Your task to perform on an android device: toggle data saver in the chrome app Image 0: 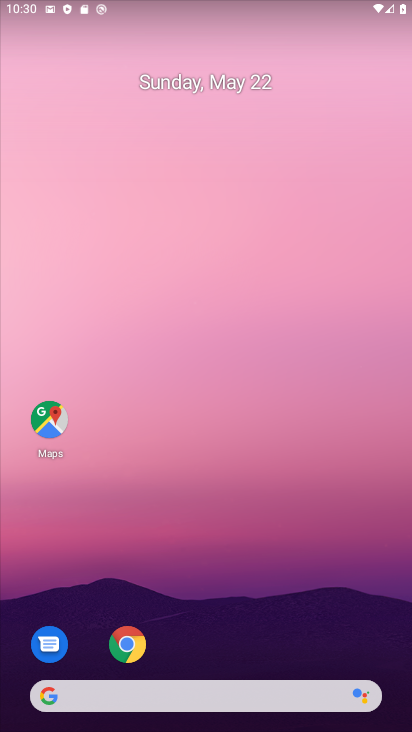
Step 0: drag from (366, 619) to (269, 29)
Your task to perform on an android device: toggle data saver in the chrome app Image 1: 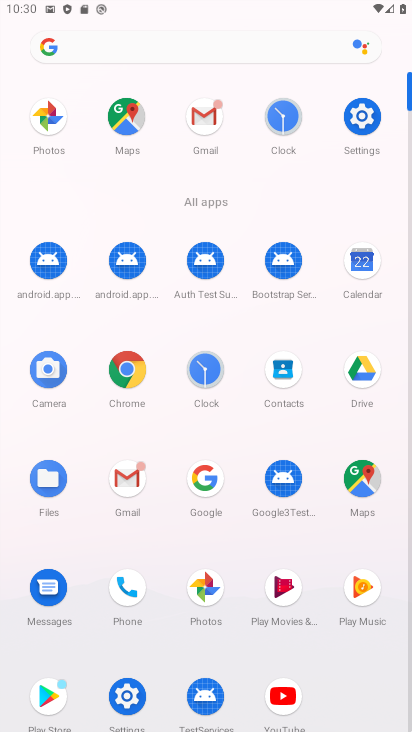
Step 1: click (137, 385)
Your task to perform on an android device: toggle data saver in the chrome app Image 2: 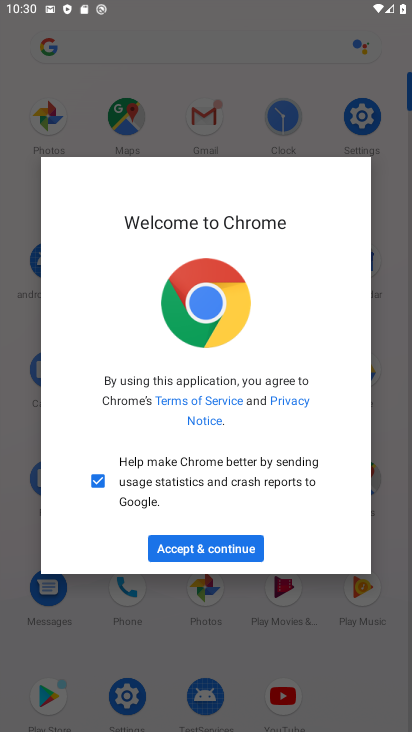
Step 2: click (219, 545)
Your task to perform on an android device: toggle data saver in the chrome app Image 3: 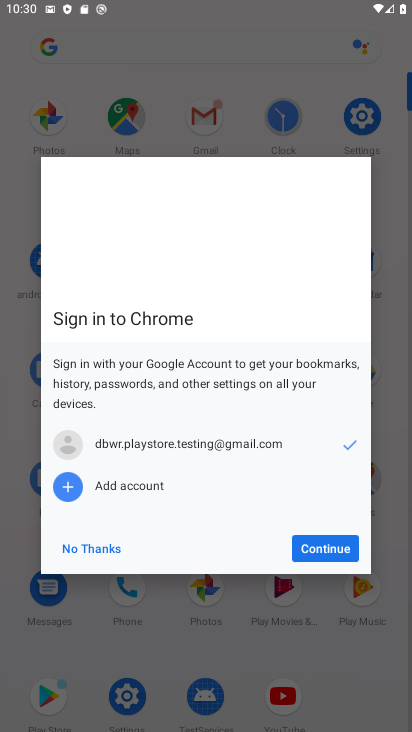
Step 3: click (308, 550)
Your task to perform on an android device: toggle data saver in the chrome app Image 4: 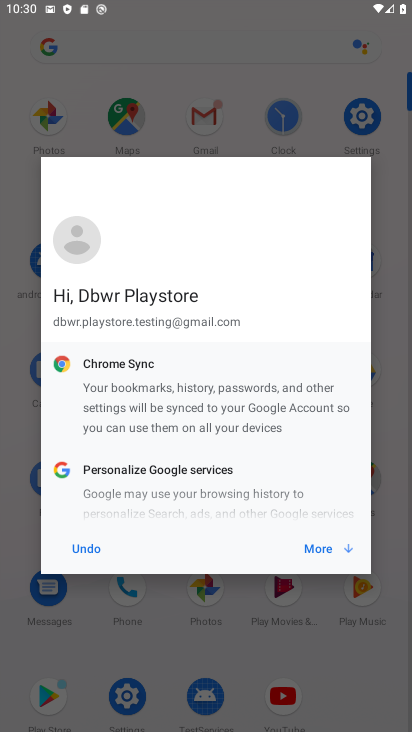
Step 4: click (308, 550)
Your task to perform on an android device: toggle data saver in the chrome app Image 5: 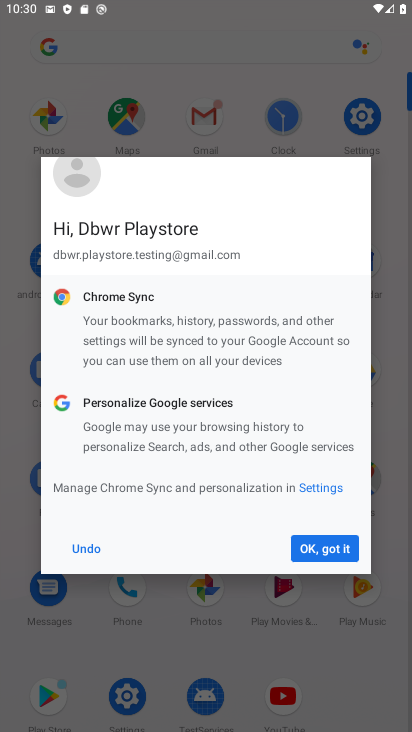
Step 5: click (308, 550)
Your task to perform on an android device: toggle data saver in the chrome app Image 6: 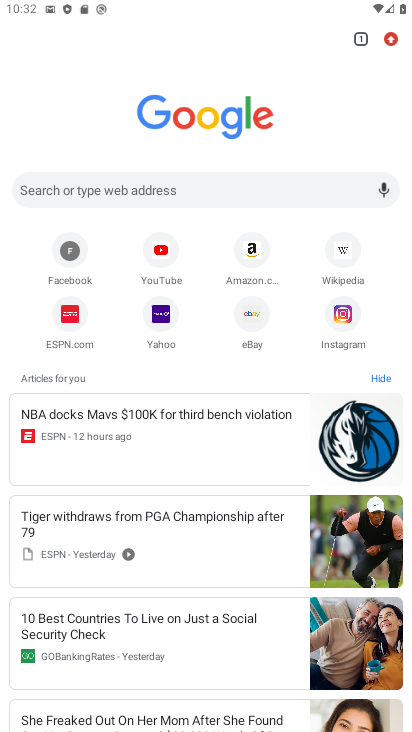
Step 6: drag from (375, 99) to (321, 699)
Your task to perform on an android device: toggle data saver in the chrome app Image 7: 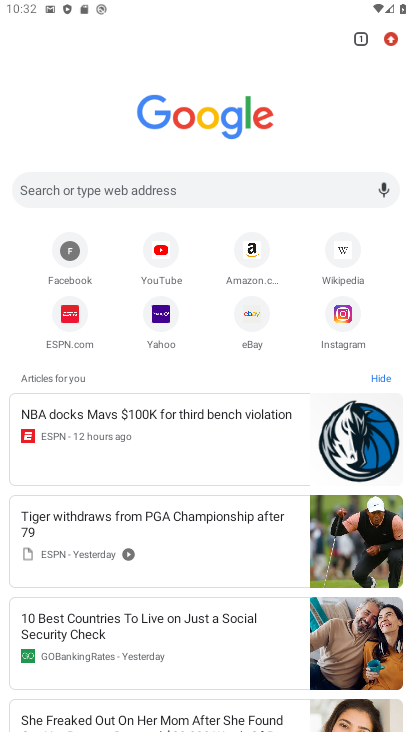
Step 7: click (386, 34)
Your task to perform on an android device: toggle data saver in the chrome app Image 8: 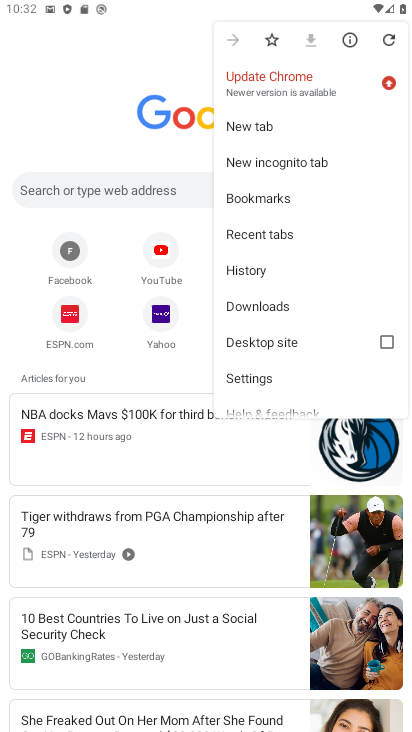
Step 8: click (279, 378)
Your task to perform on an android device: toggle data saver in the chrome app Image 9: 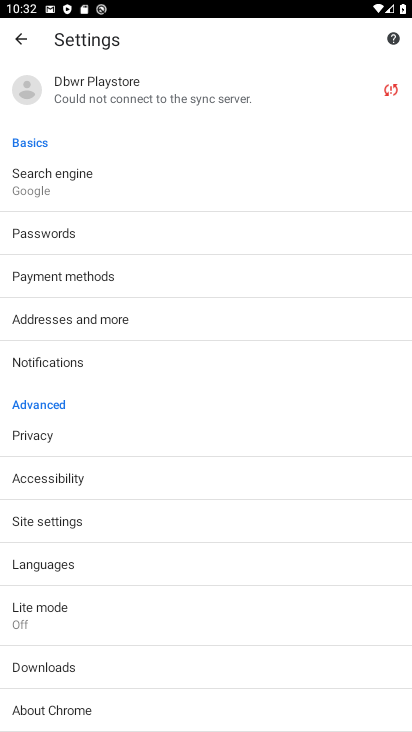
Step 9: click (121, 626)
Your task to perform on an android device: toggle data saver in the chrome app Image 10: 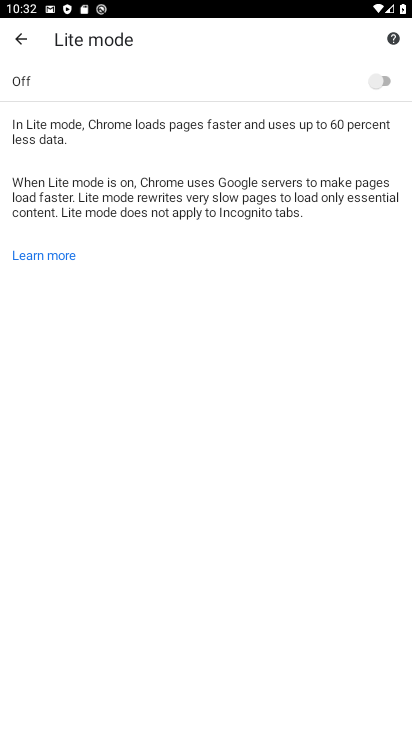
Step 10: click (357, 78)
Your task to perform on an android device: toggle data saver in the chrome app Image 11: 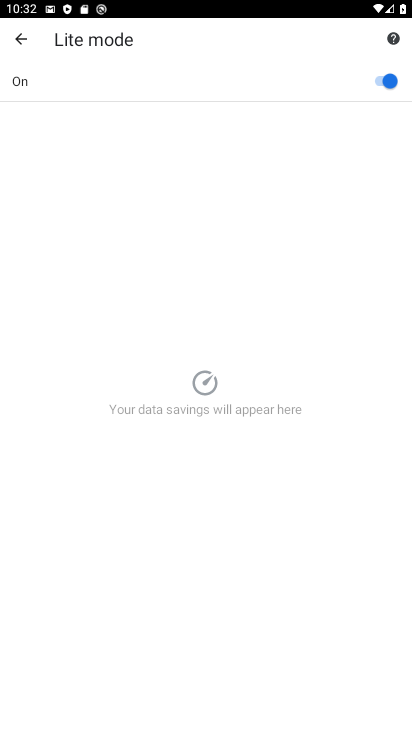
Step 11: task complete